Your task to perform on an android device: add a contact Image 0: 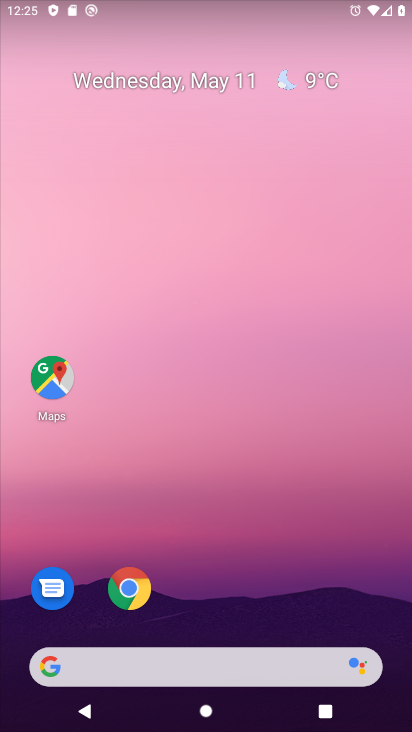
Step 0: drag from (346, 604) to (346, 0)
Your task to perform on an android device: add a contact Image 1: 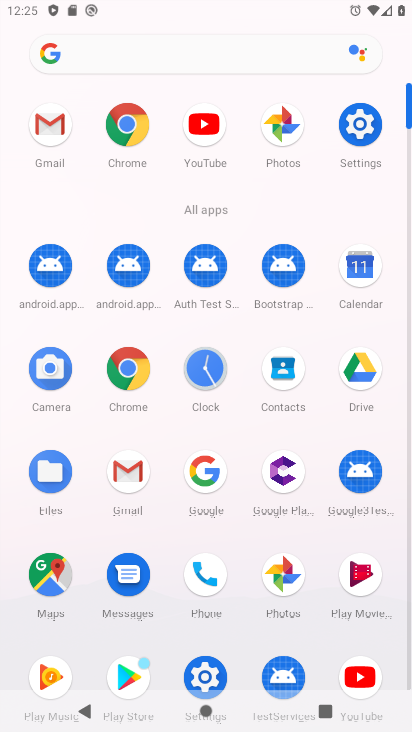
Step 1: click (286, 373)
Your task to perform on an android device: add a contact Image 2: 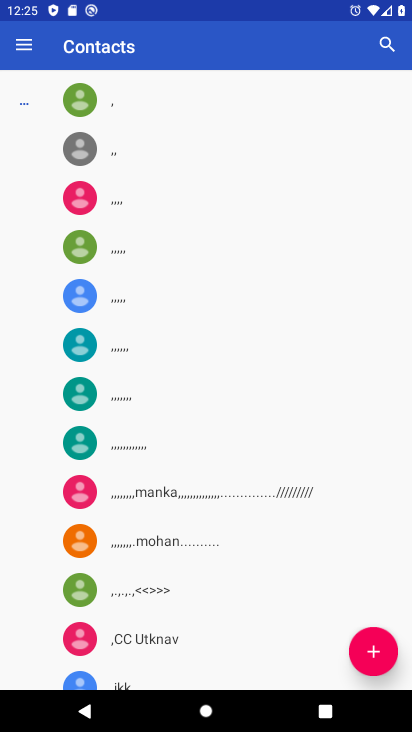
Step 2: click (377, 651)
Your task to perform on an android device: add a contact Image 3: 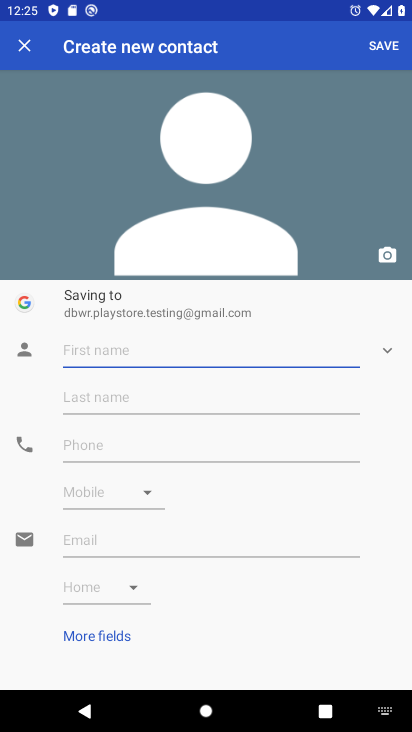
Step 3: click (108, 359)
Your task to perform on an android device: add a contact Image 4: 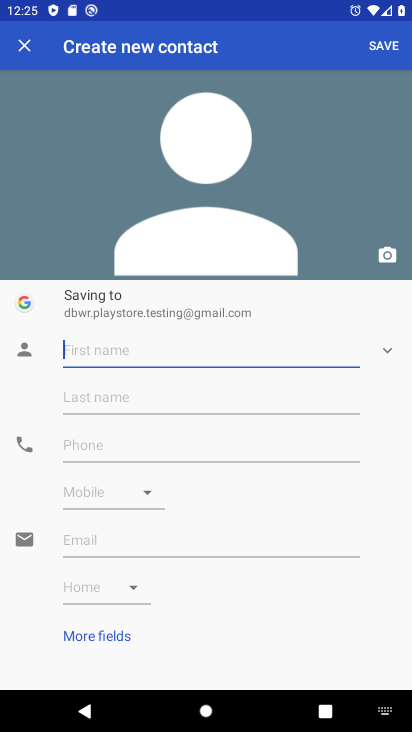
Step 4: type "nilu"
Your task to perform on an android device: add a contact Image 5: 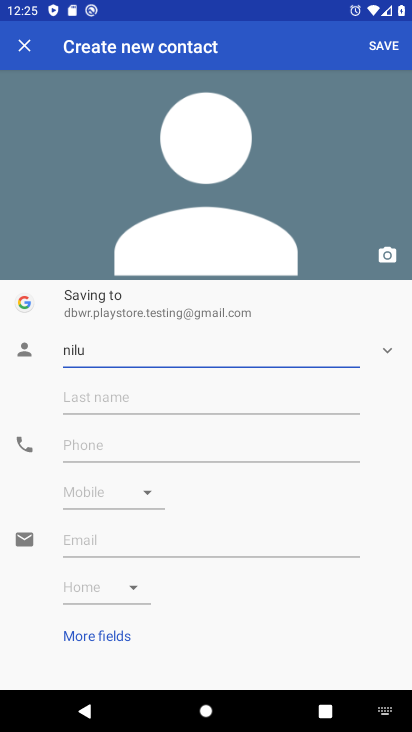
Step 5: click (126, 445)
Your task to perform on an android device: add a contact Image 6: 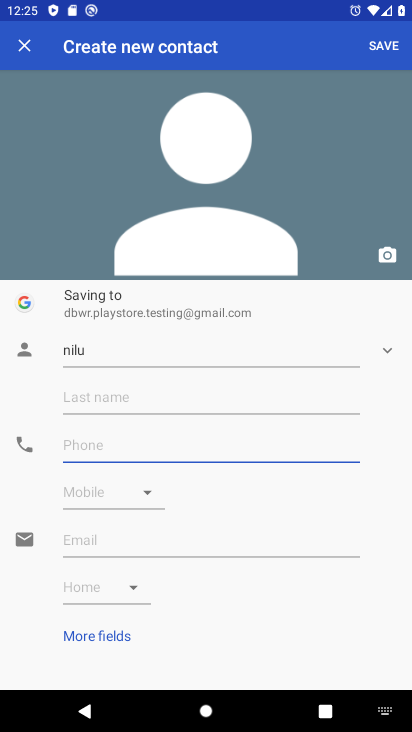
Step 6: type "98766554"
Your task to perform on an android device: add a contact Image 7: 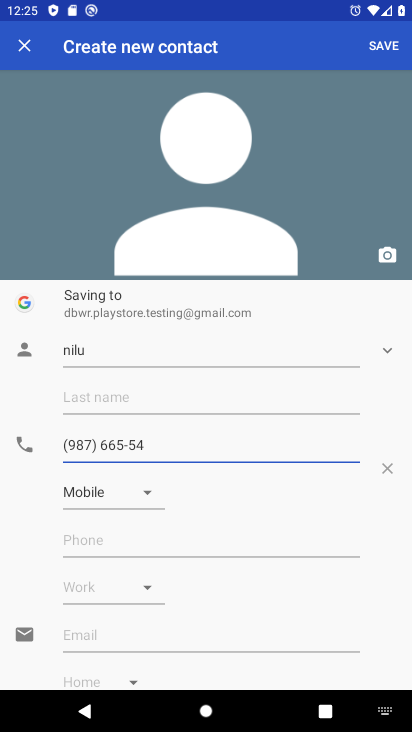
Step 7: click (375, 38)
Your task to perform on an android device: add a contact Image 8: 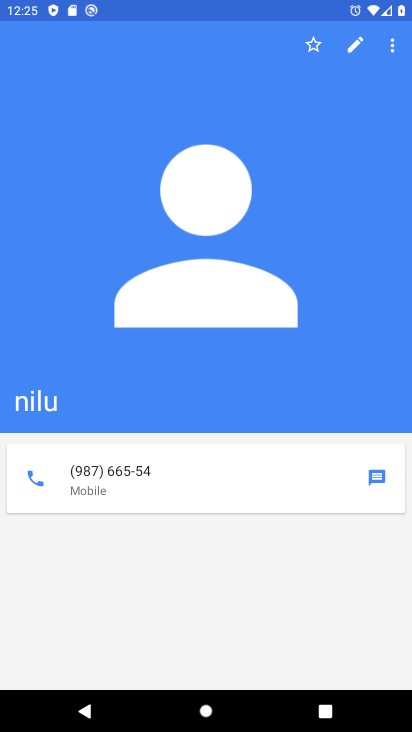
Step 8: task complete